Your task to perform on an android device: Go to display settings Image 0: 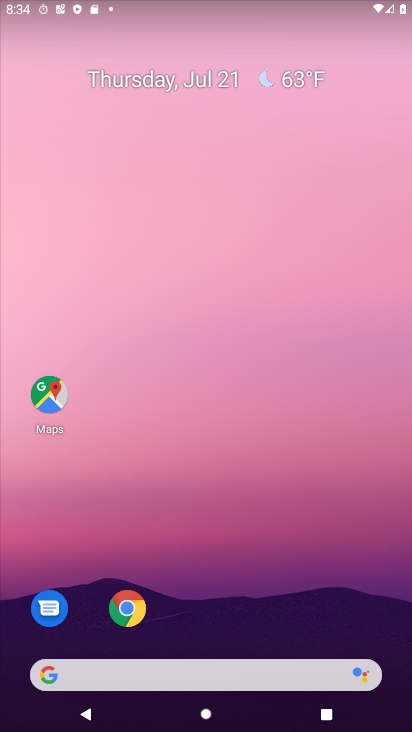
Step 0: drag from (231, 634) to (112, 109)
Your task to perform on an android device: Go to display settings Image 1: 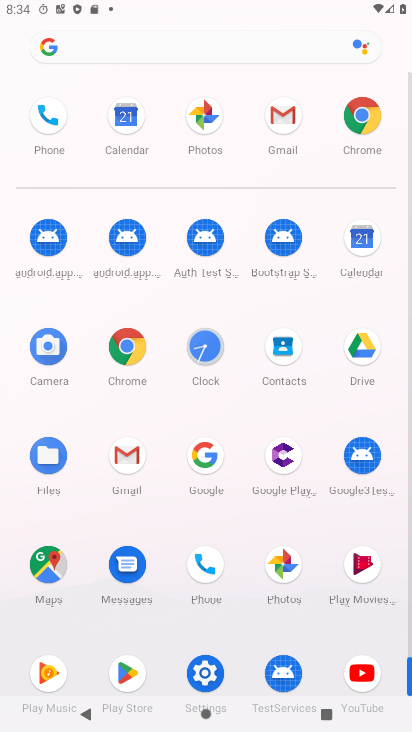
Step 1: click (198, 674)
Your task to perform on an android device: Go to display settings Image 2: 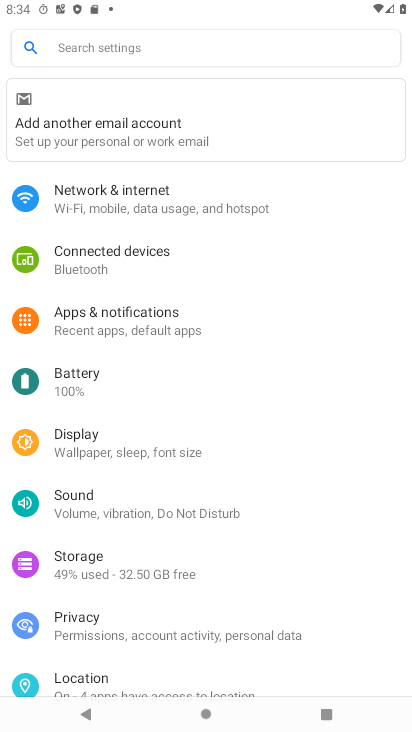
Step 2: click (85, 446)
Your task to perform on an android device: Go to display settings Image 3: 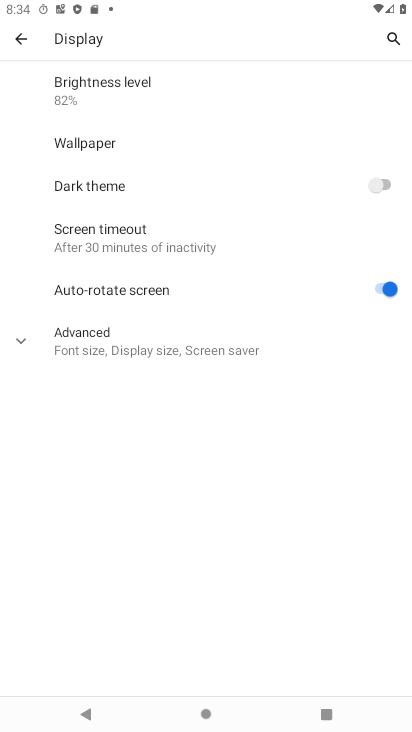
Step 3: task complete